Your task to perform on an android device: open app "Pandora - Music & Podcasts" (install if not already installed) and enter user name: "creator@yahoo.com" and password: "valuable" Image 0: 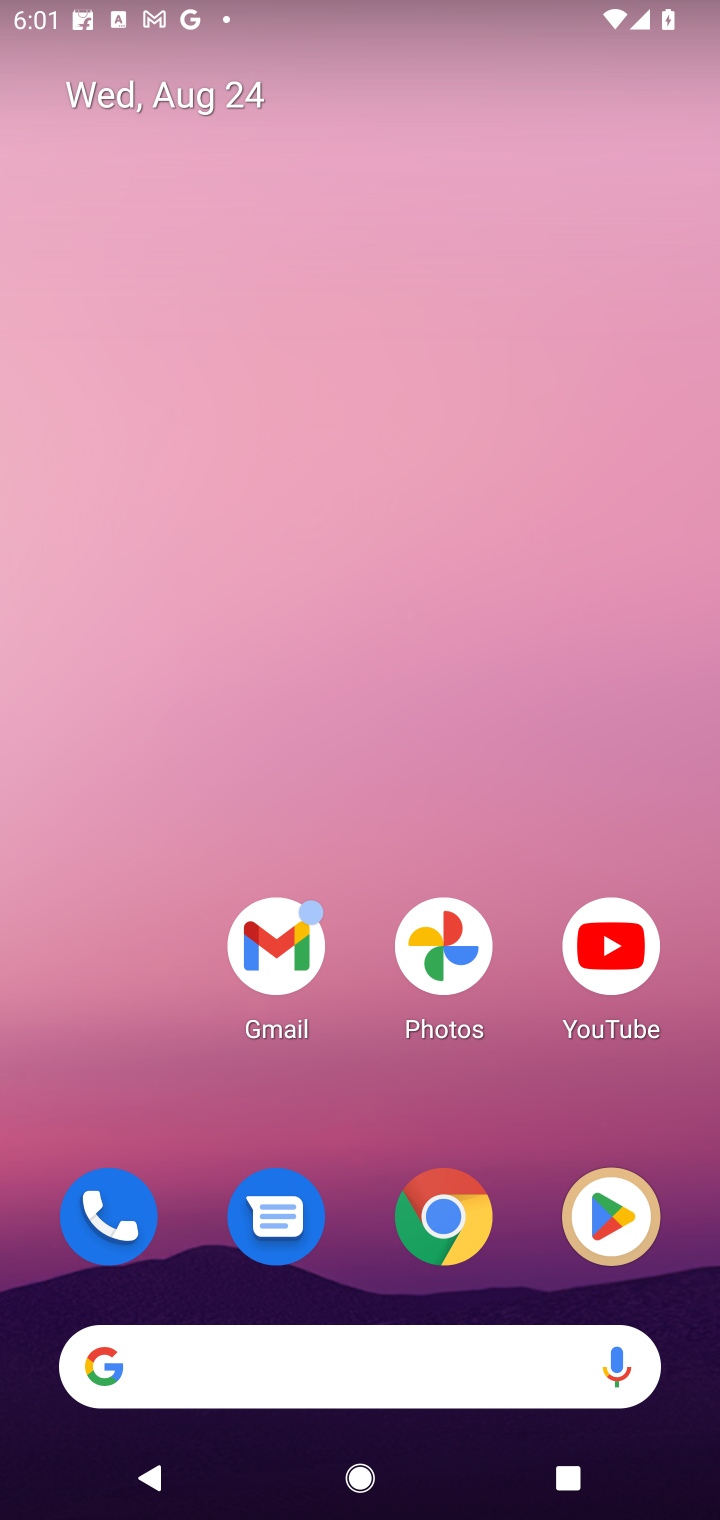
Step 0: click (557, 1219)
Your task to perform on an android device: open app "Pandora - Music & Podcasts" (install if not already installed) and enter user name: "creator@yahoo.com" and password: "valuable" Image 1: 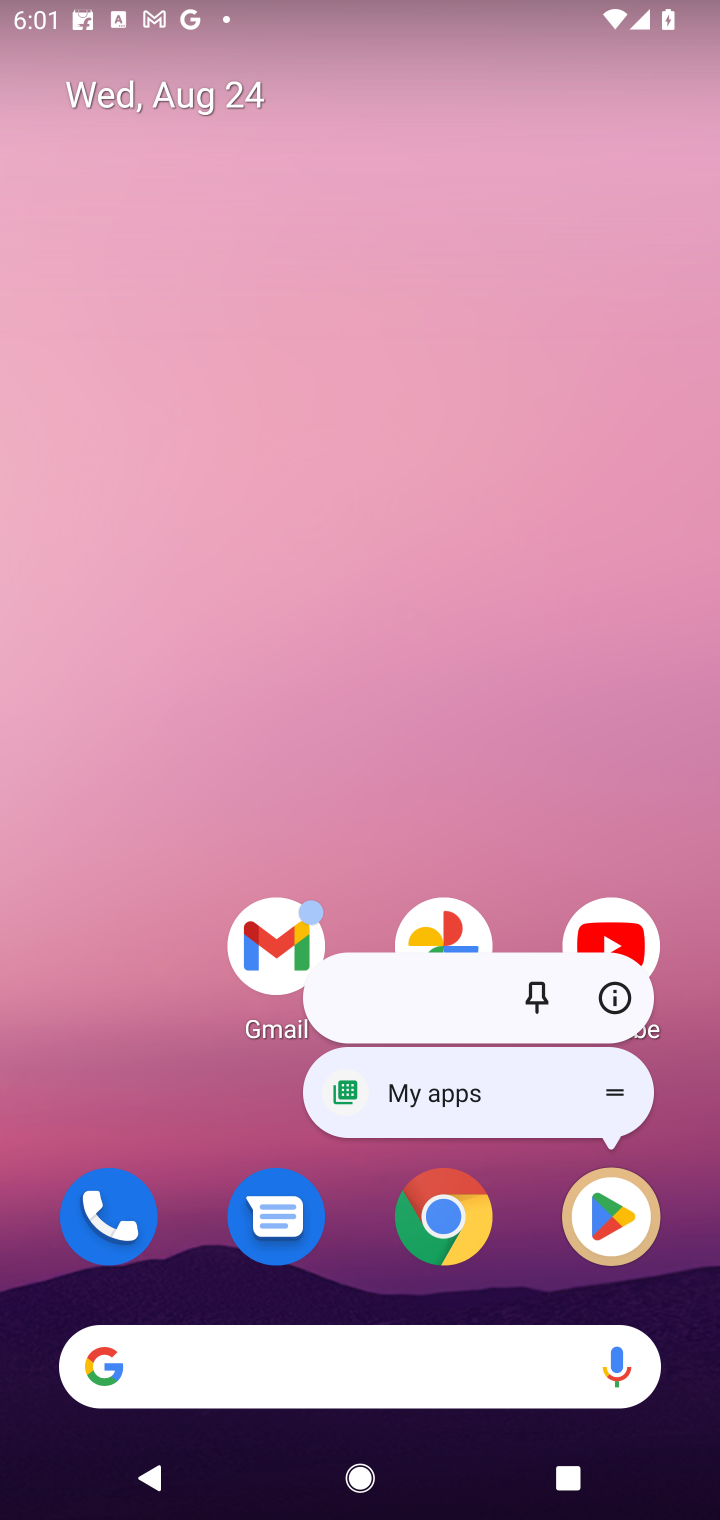
Step 1: click (619, 1222)
Your task to perform on an android device: open app "Pandora - Music & Podcasts" (install if not already installed) and enter user name: "creator@yahoo.com" and password: "valuable" Image 2: 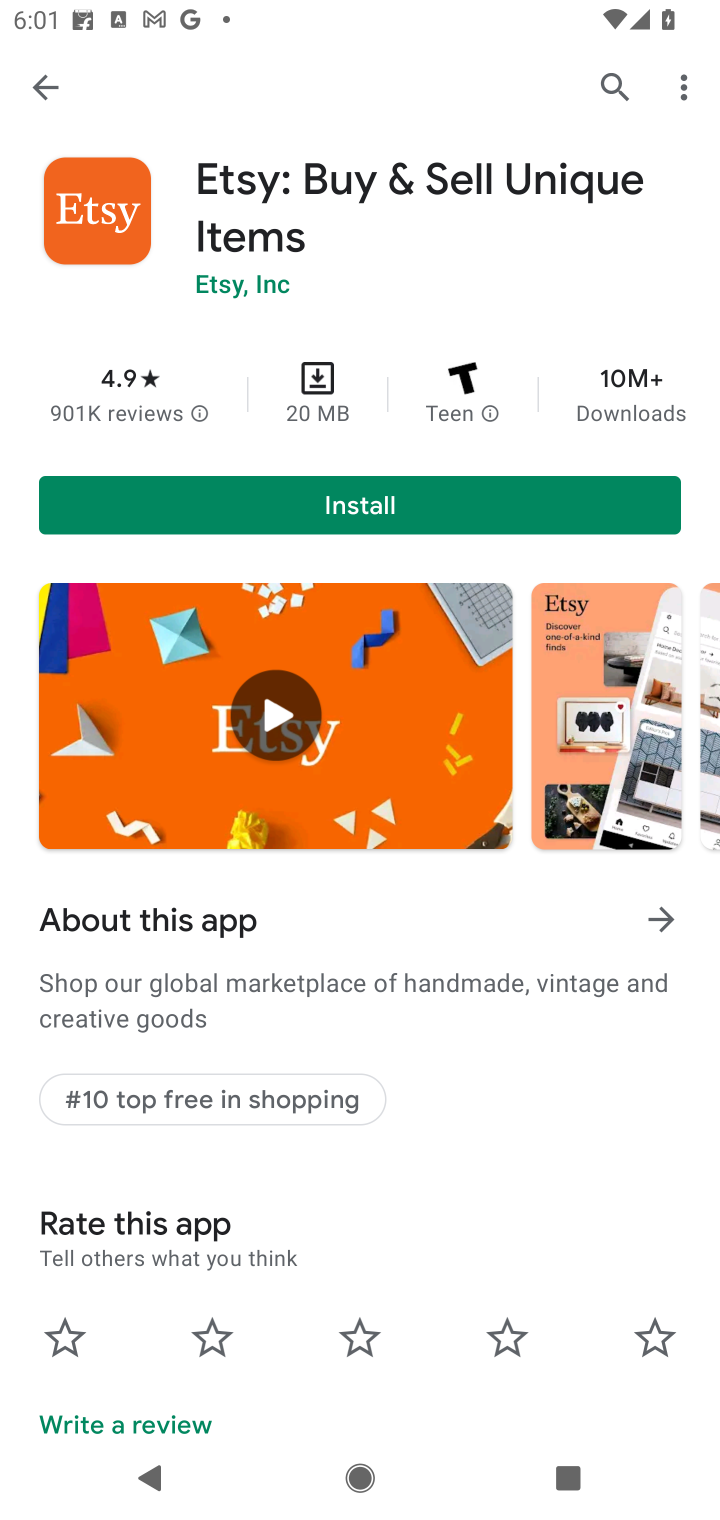
Step 2: click (591, 82)
Your task to perform on an android device: open app "Pandora - Music & Podcasts" (install if not already installed) and enter user name: "creator@yahoo.com" and password: "valuable" Image 3: 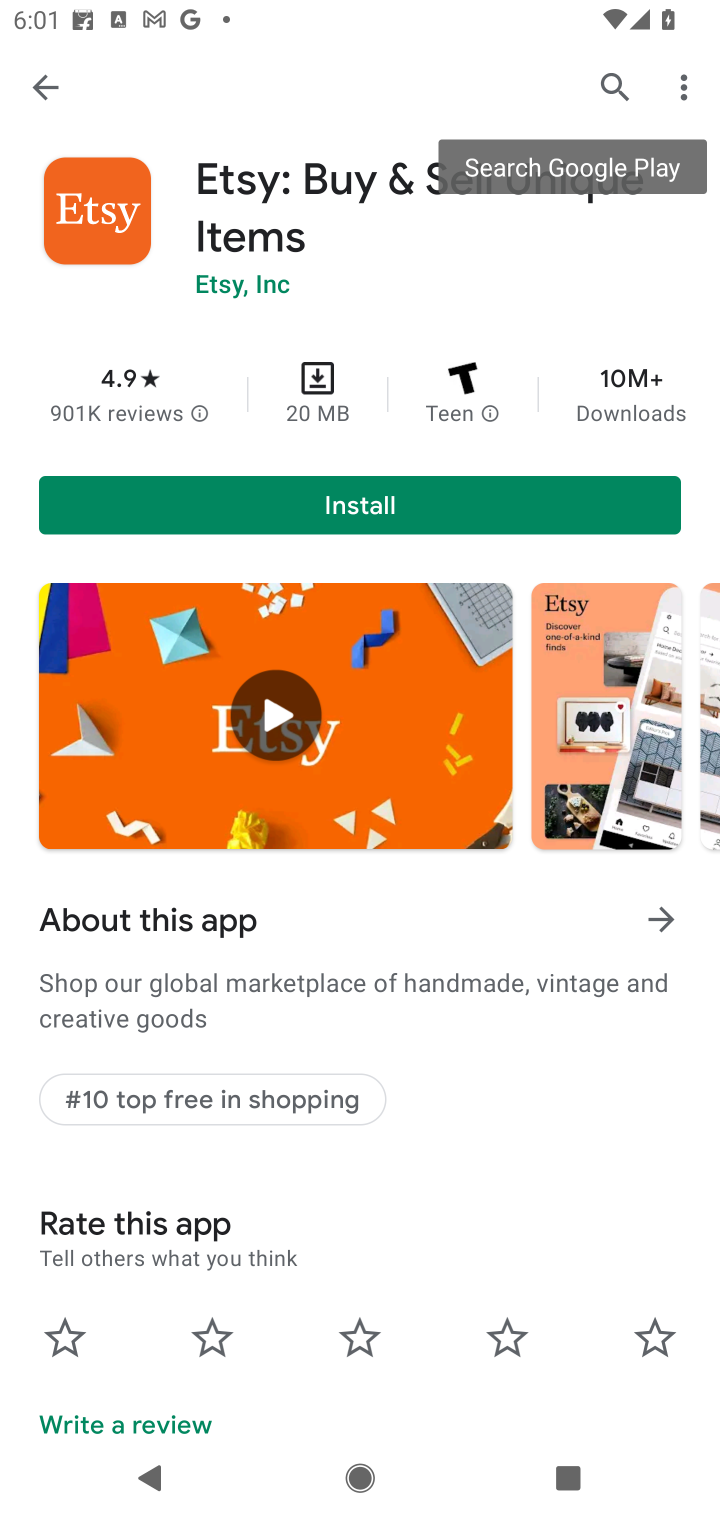
Step 3: click (606, 89)
Your task to perform on an android device: open app "Pandora - Music & Podcasts" (install if not already installed) and enter user name: "creator@yahoo.com" and password: "valuable" Image 4: 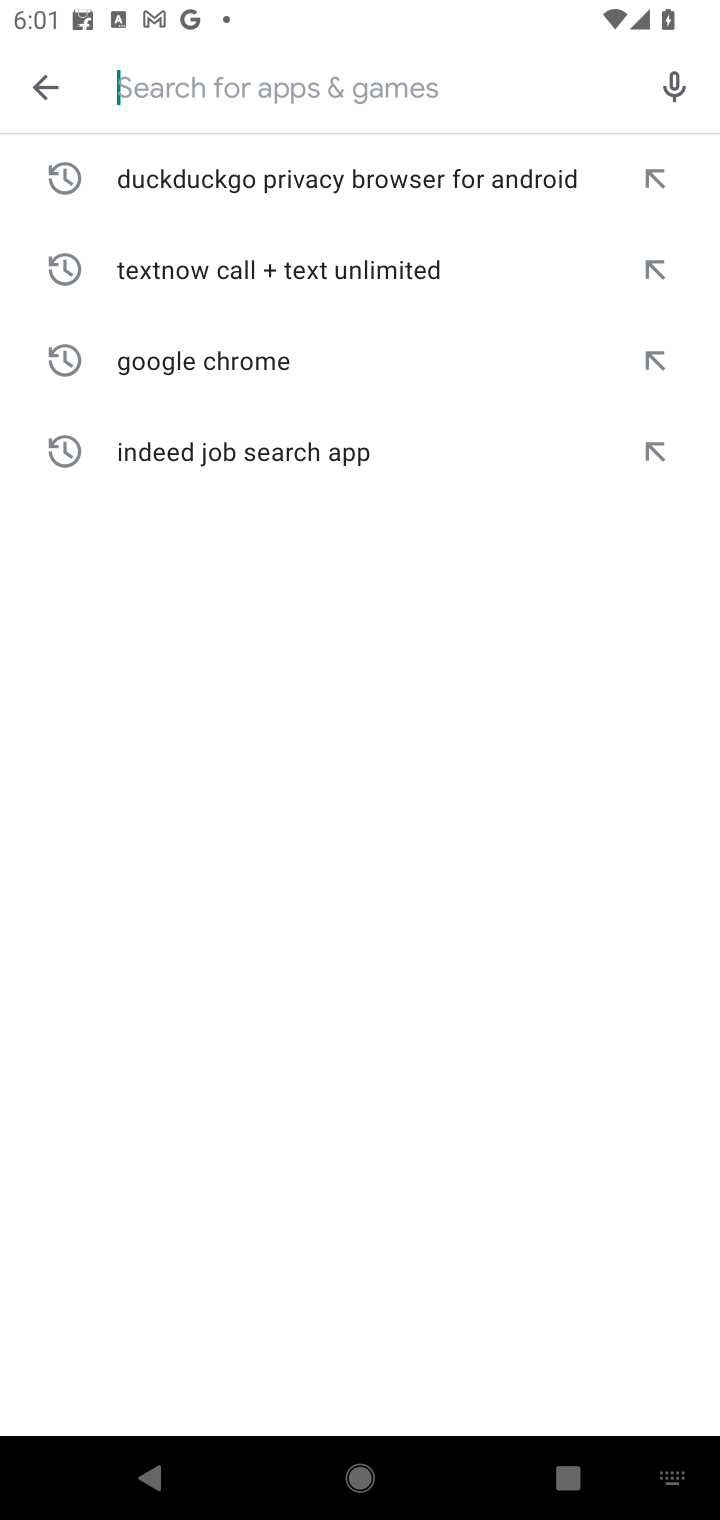
Step 4: type "Pandora - Music & Podcasts"
Your task to perform on an android device: open app "Pandora - Music & Podcasts" (install if not already installed) and enter user name: "creator@yahoo.com" and password: "valuable" Image 5: 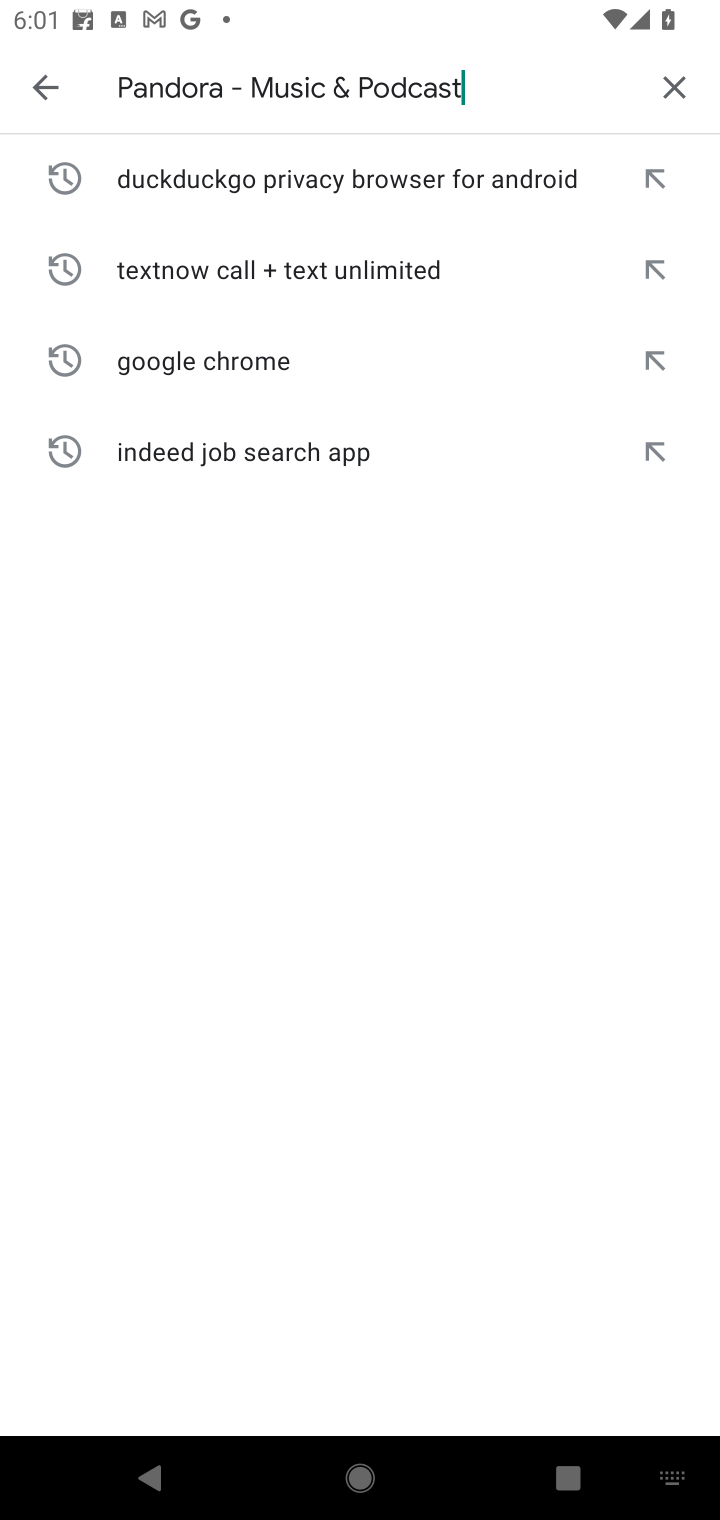
Step 5: type ""
Your task to perform on an android device: open app "Pandora - Music & Podcasts" (install if not already installed) and enter user name: "creator@yahoo.com" and password: "valuable" Image 6: 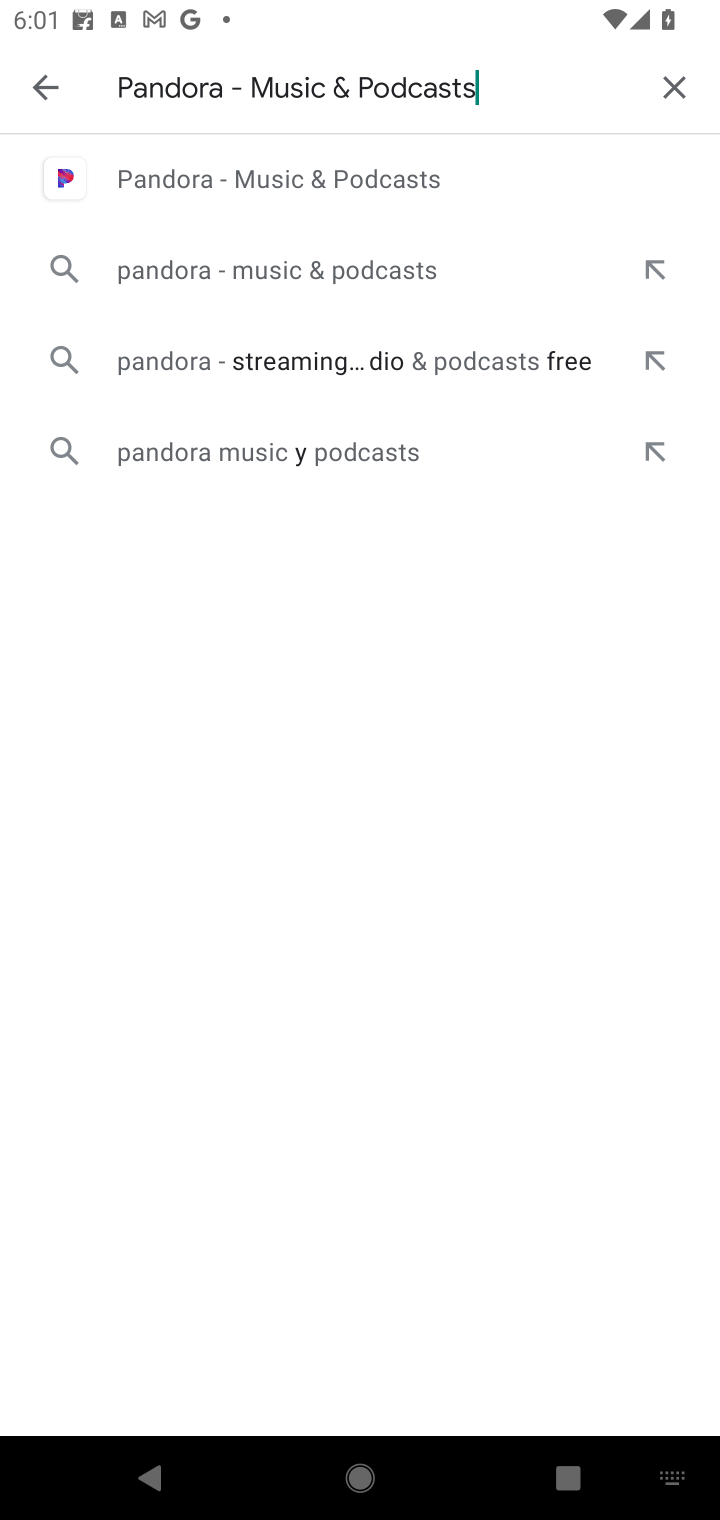
Step 6: click (425, 184)
Your task to perform on an android device: open app "Pandora - Music & Podcasts" (install if not already installed) and enter user name: "creator@yahoo.com" and password: "valuable" Image 7: 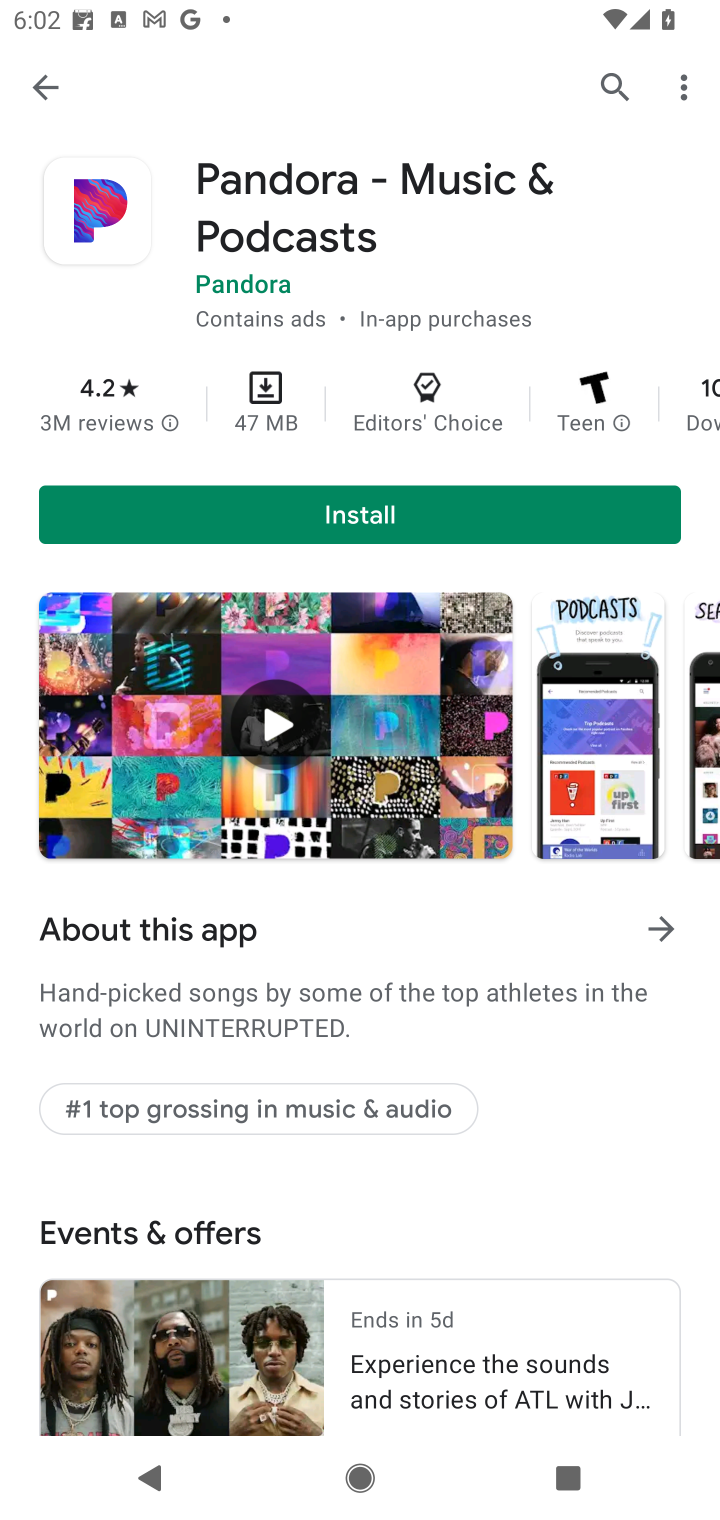
Step 7: click (378, 524)
Your task to perform on an android device: open app "Pandora - Music & Podcasts" (install if not already installed) and enter user name: "creator@yahoo.com" and password: "valuable" Image 8: 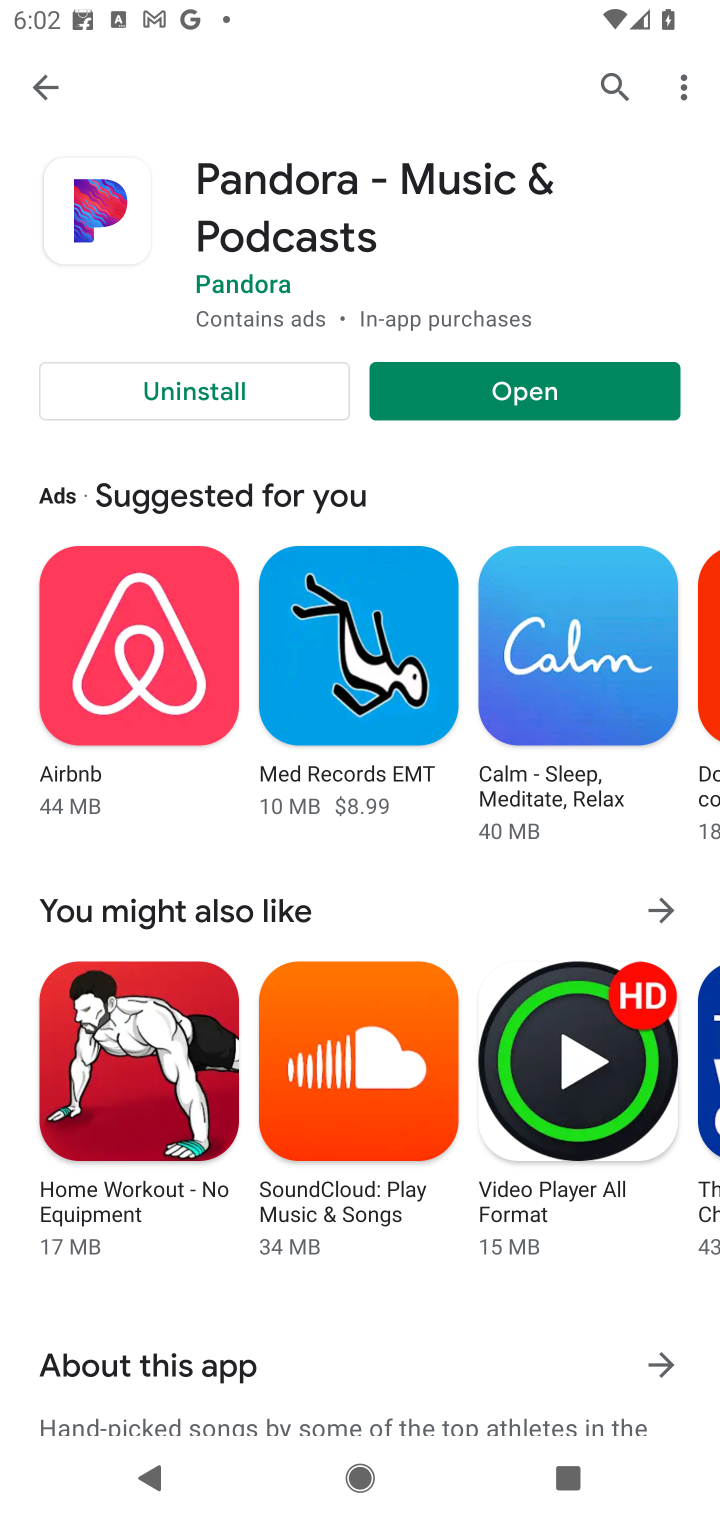
Step 8: click (521, 399)
Your task to perform on an android device: open app "Pandora - Music & Podcasts" (install if not already installed) and enter user name: "creator@yahoo.com" and password: "valuable" Image 9: 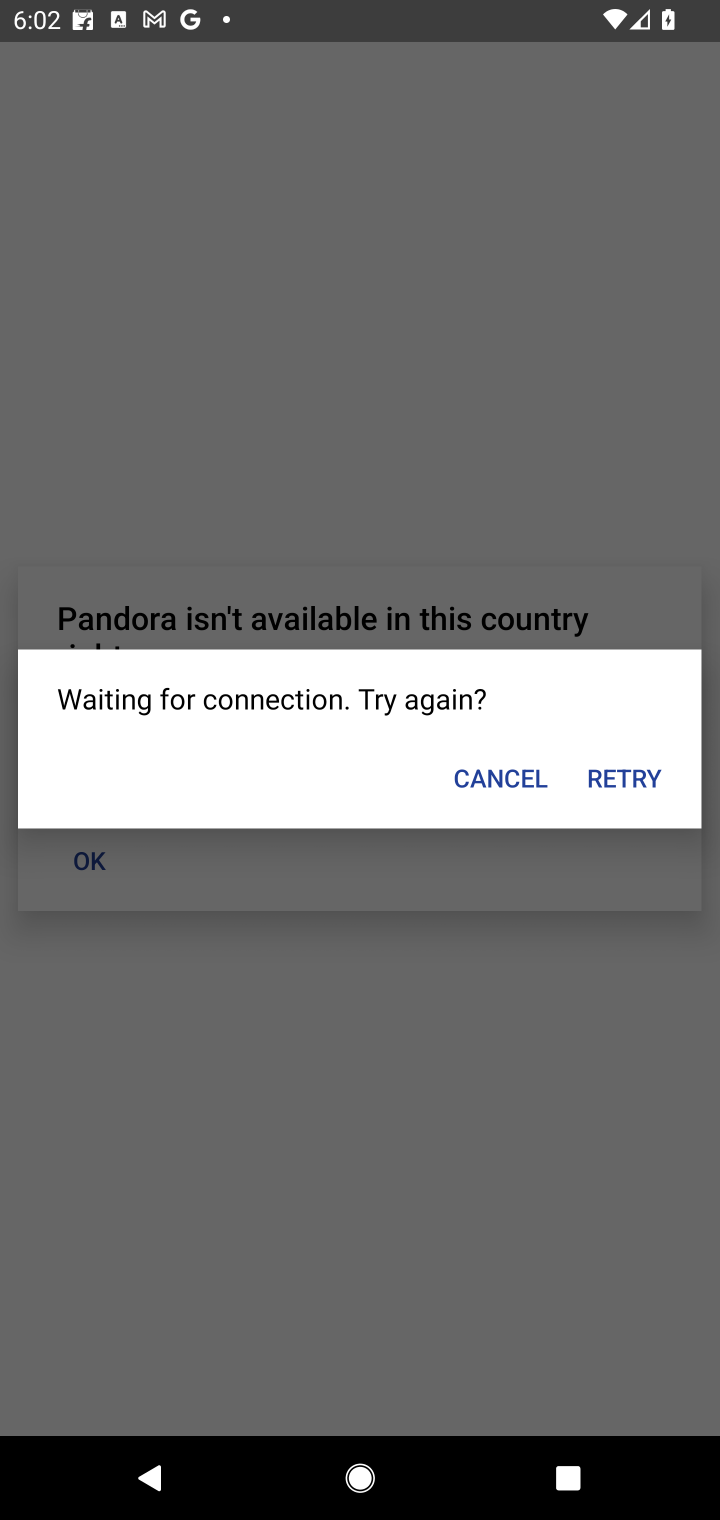
Step 9: task complete